Your task to perform on an android device: Open Google Chrome and click the shortcut for Amazon.com Image 0: 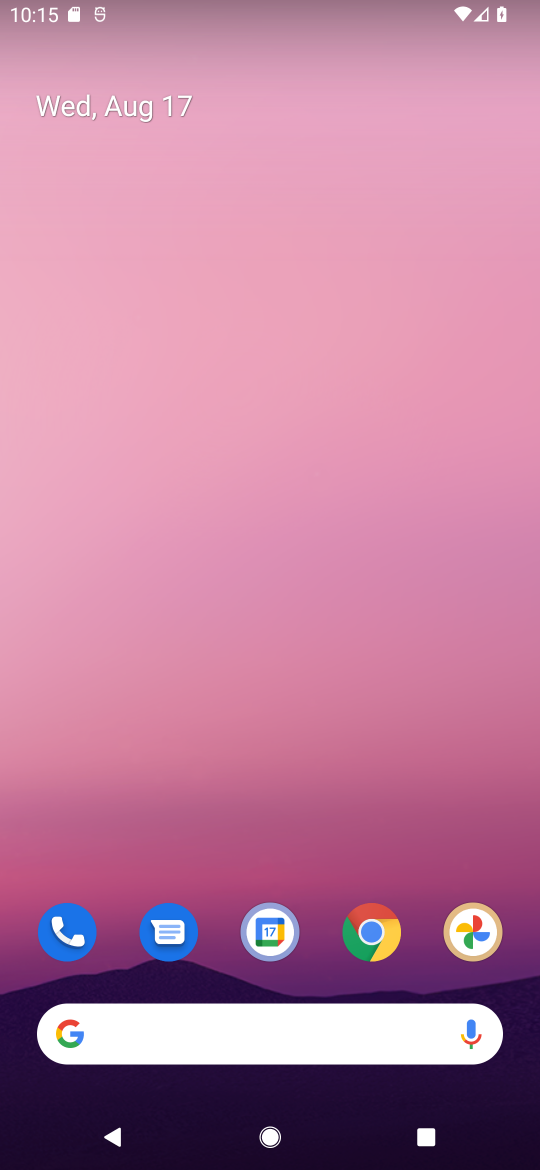
Step 0: click (372, 940)
Your task to perform on an android device: Open Google Chrome and click the shortcut for Amazon.com Image 1: 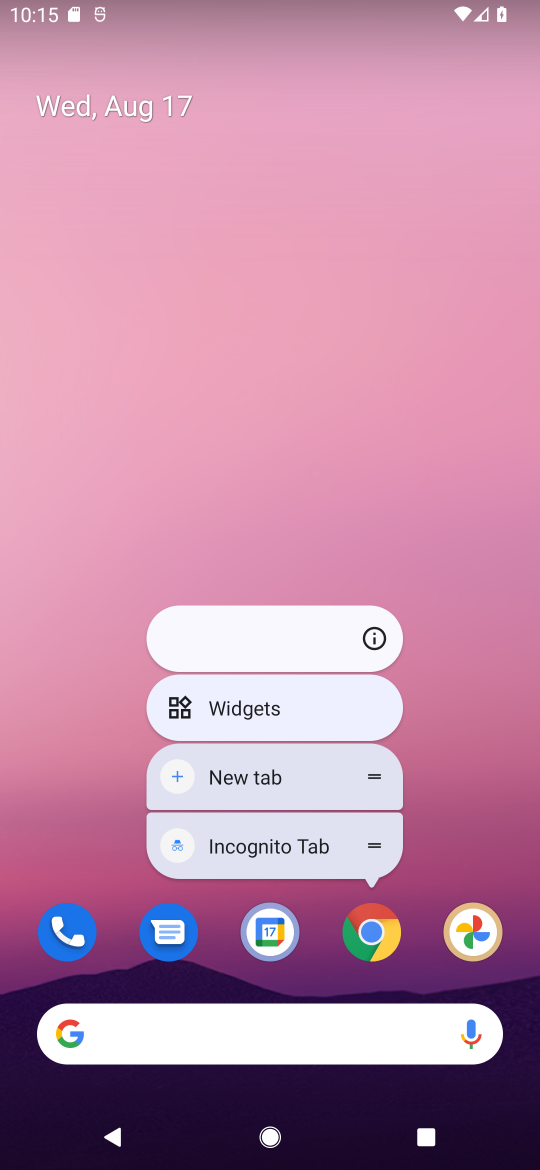
Step 1: click (366, 948)
Your task to perform on an android device: Open Google Chrome and click the shortcut for Amazon.com Image 2: 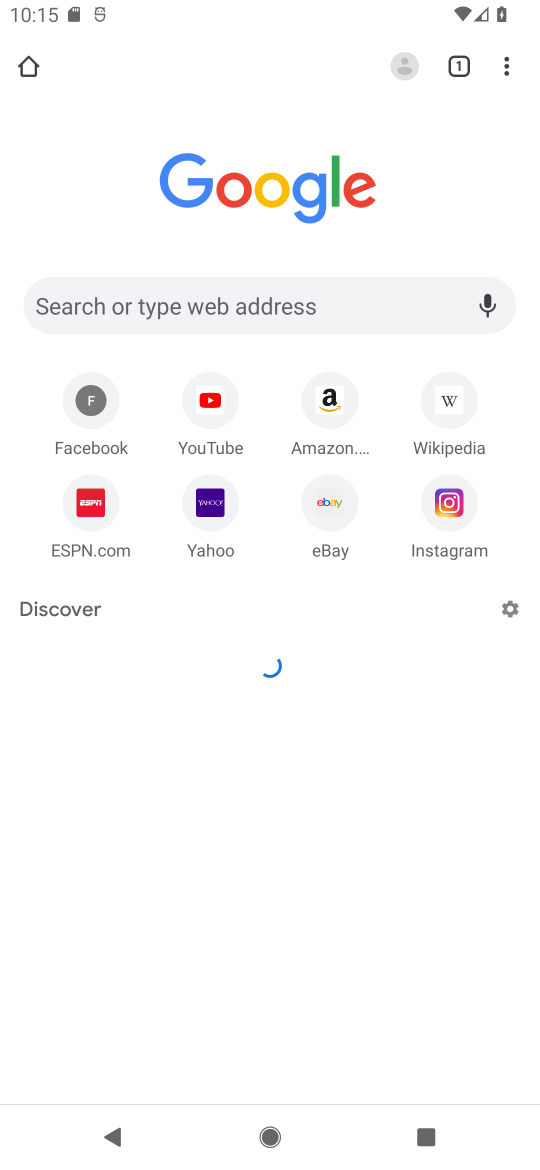
Step 2: click (334, 403)
Your task to perform on an android device: Open Google Chrome and click the shortcut for Amazon.com Image 3: 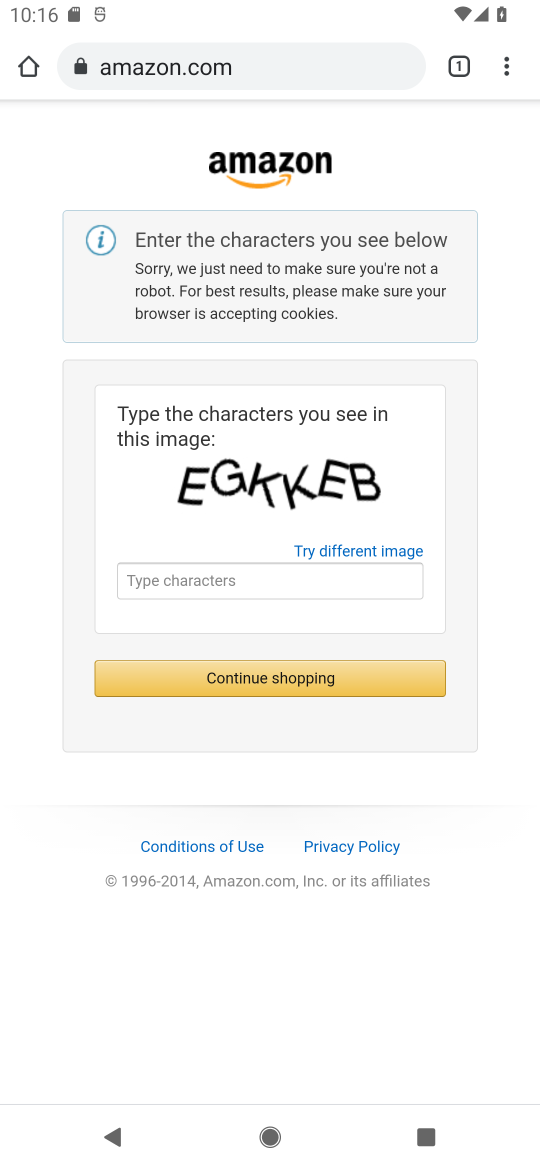
Step 3: task complete